Your task to perform on an android device: Open sound settings Image 0: 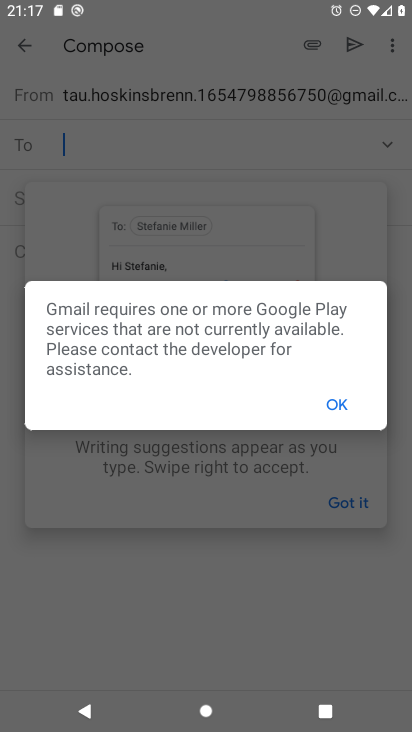
Step 0: press home button
Your task to perform on an android device: Open sound settings Image 1: 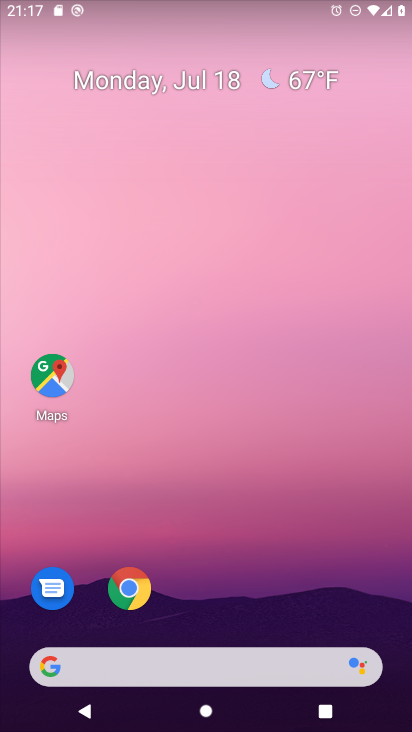
Step 1: drag from (347, 608) to (310, 163)
Your task to perform on an android device: Open sound settings Image 2: 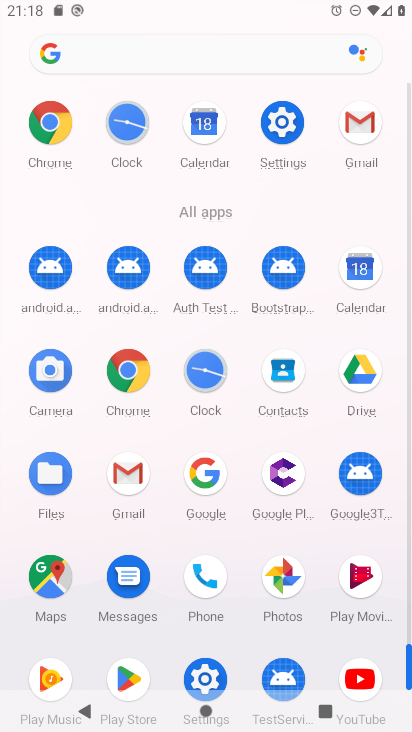
Step 2: click (207, 677)
Your task to perform on an android device: Open sound settings Image 3: 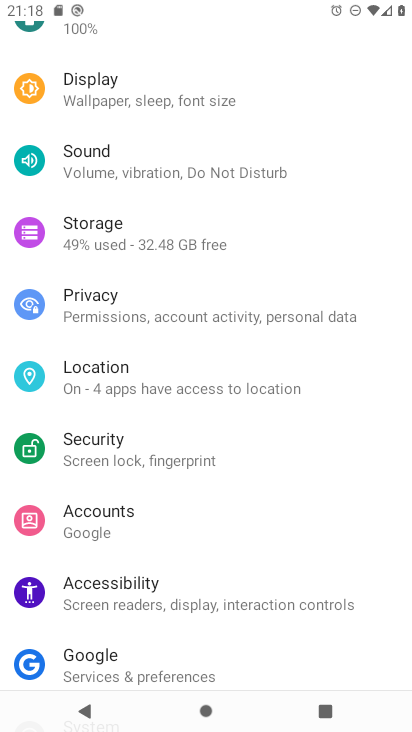
Step 3: click (93, 156)
Your task to perform on an android device: Open sound settings Image 4: 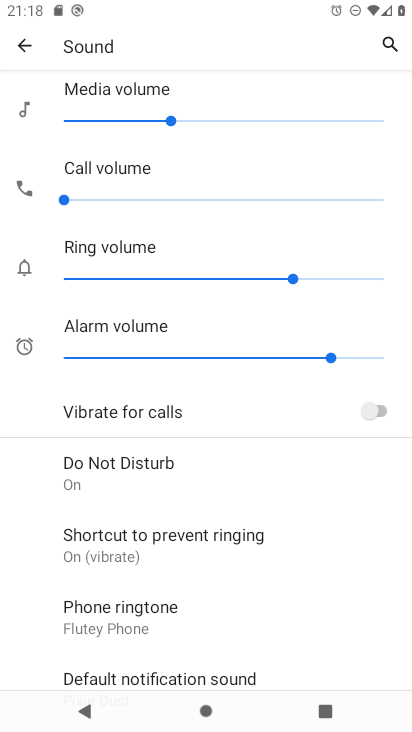
Step 4: task complete